Your task to perform on an android device: toggle data saver in the chrome app Image 0: 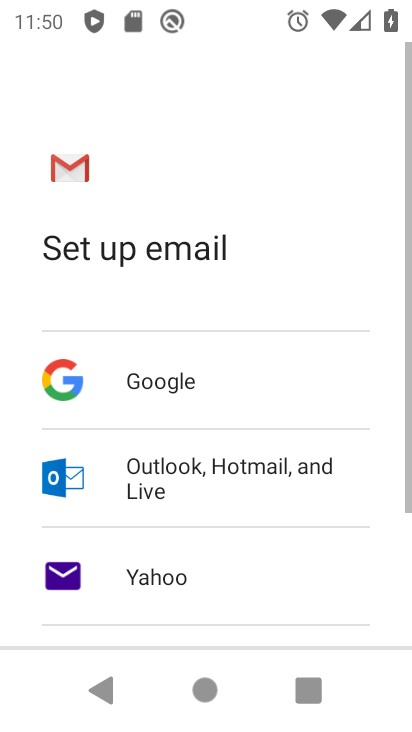
Step 0: press home button
Your task to perform on an android device: toggle data saver in the chrome app Image 1: 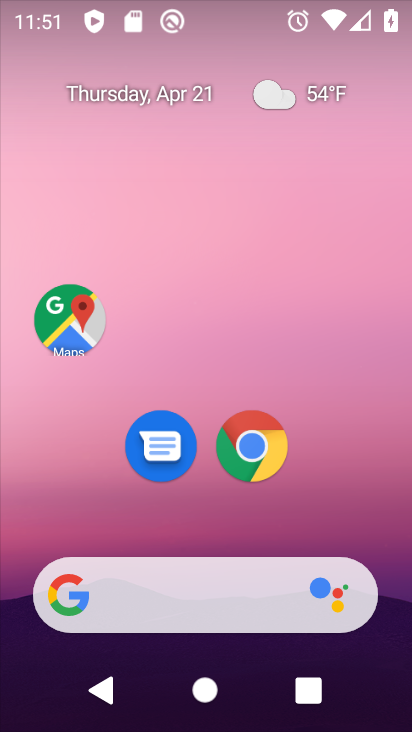
Step 1: click (274, 438)
Your task to perform on an android device: toggle data saver in the chrome app Image 2: 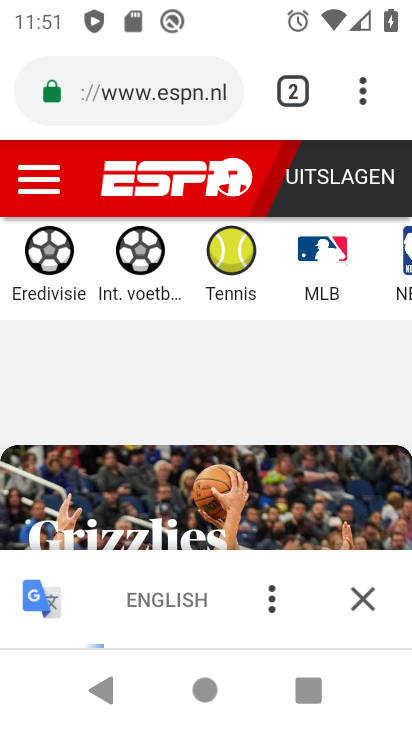
Step 2: drag from (368, 120) to (219, 490)
Your task to perform on an android device: toggle data saver in the chrome app Image 3: 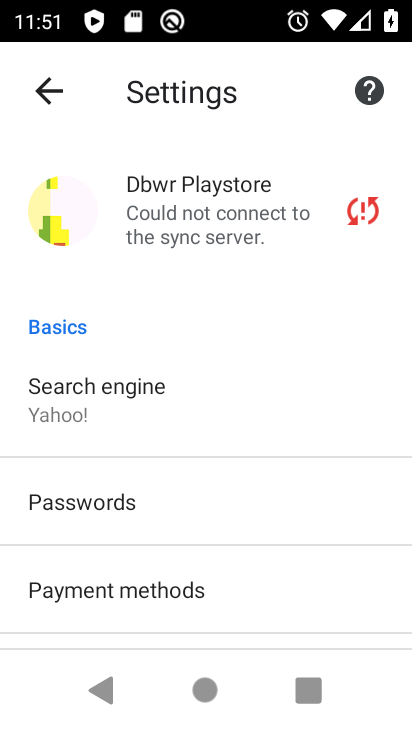
Step 3: drag from (251, 576) to (267, 90)
Your task to perform on an android device: toggle data saver in the chrome app Image 4: 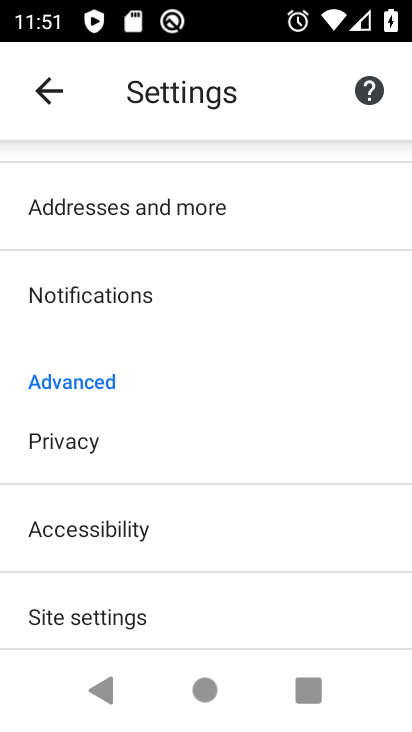
Step 4: drag from (281, 597) to (242, 426)
Your task to perform on an android device: toggle data saver in the chrome app Image 5: 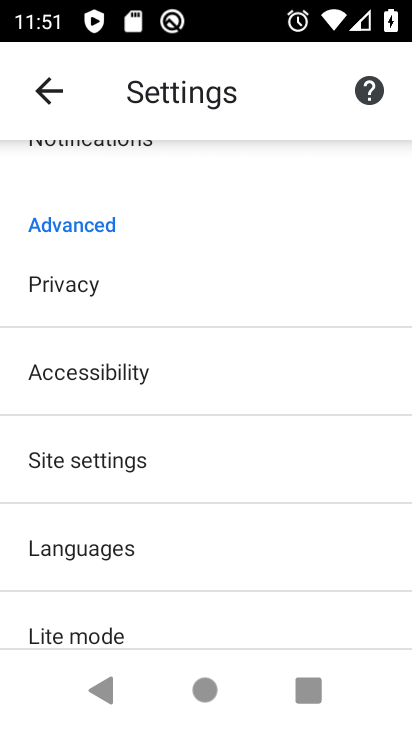
Step 5: drag from (258, 553) to (240, 381)
Your task to perform on an android device: toggle data saver in the chrome app Image 6: 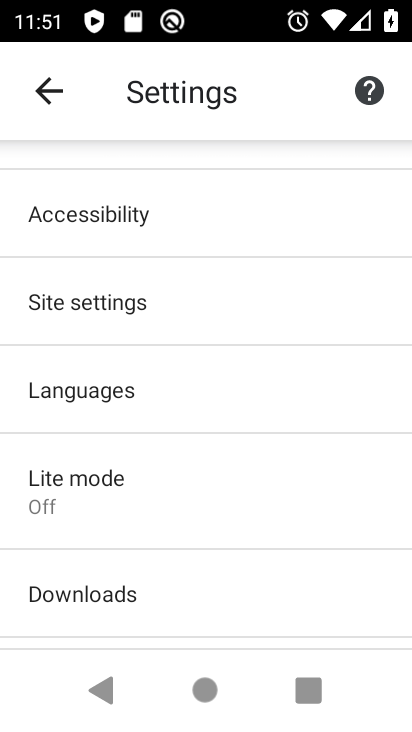
Step 6: click (252, 516)
Your task to perform on an android device: toggle data saver in the chrome app Image 7: 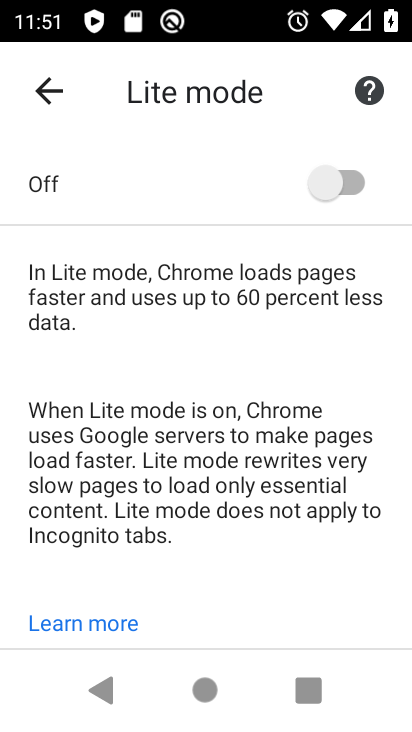
Step 7: click (343, 176)
Your task to perform on an android device: toggle data saver in the chrome app Image 8: 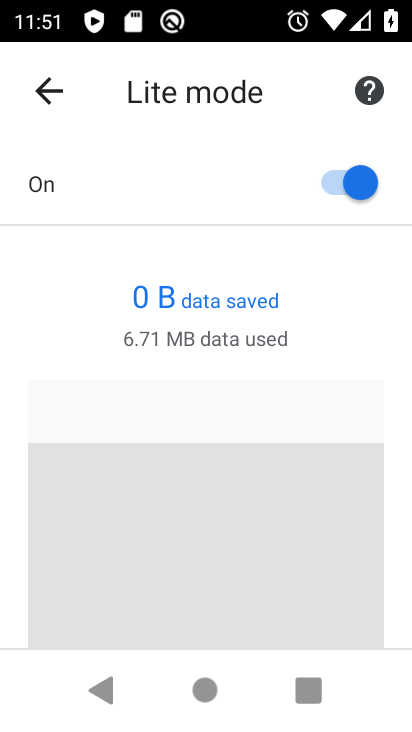
Step 8: task complete